Your task to perform on an android device: turn on airplane mode Image 0: 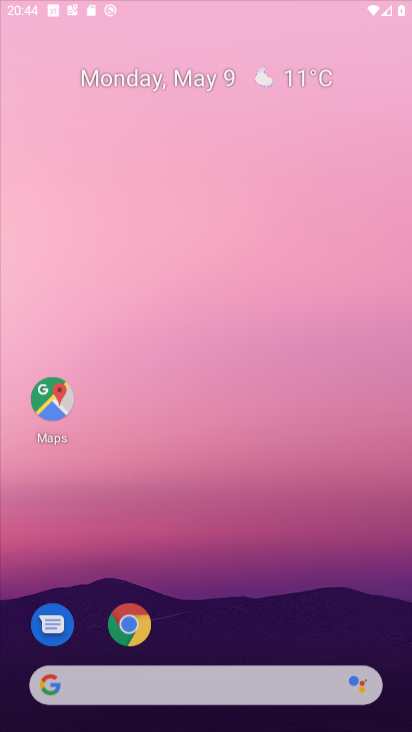
Step 0: click (45, 412)
Your task to perform on an android device: turn on airplane mode Image 1: 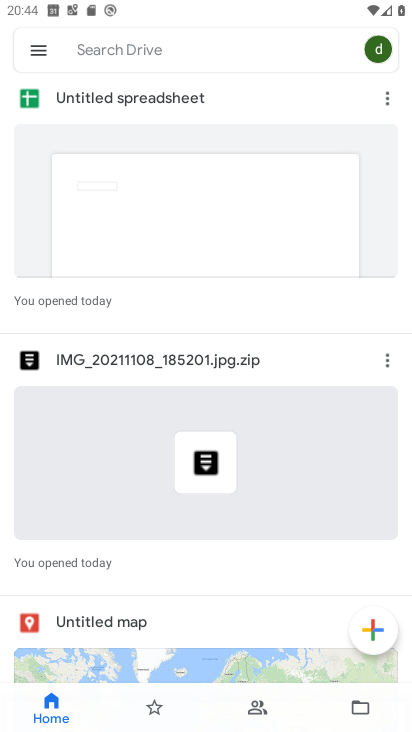
Step 1: press home button
Your task to perform on an android device: turn on airplane mode Image 2: 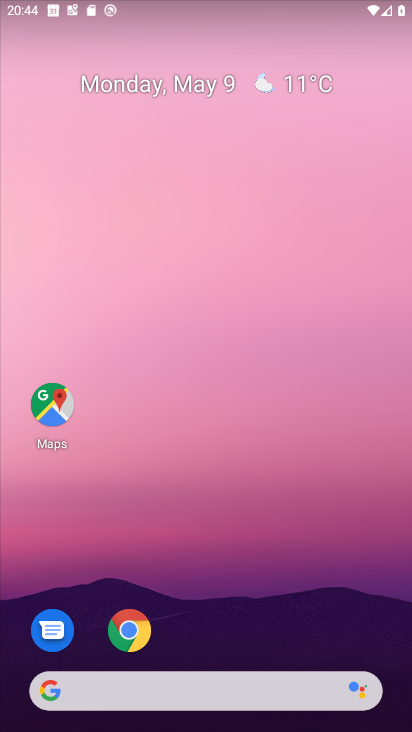
Step 2: drag from (293, 589) to (277, 226)
Your task to perform on an android device: turn on airplane mode Image 3: 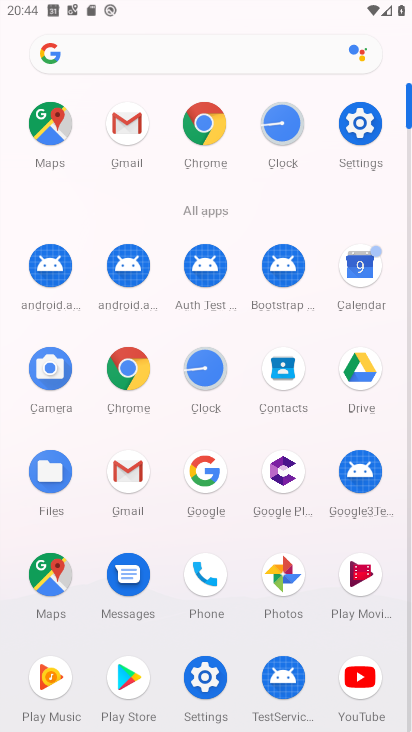
Step 3: click (341, 127)
Your task to perform on an android device: turn on airplane mode Image 4: 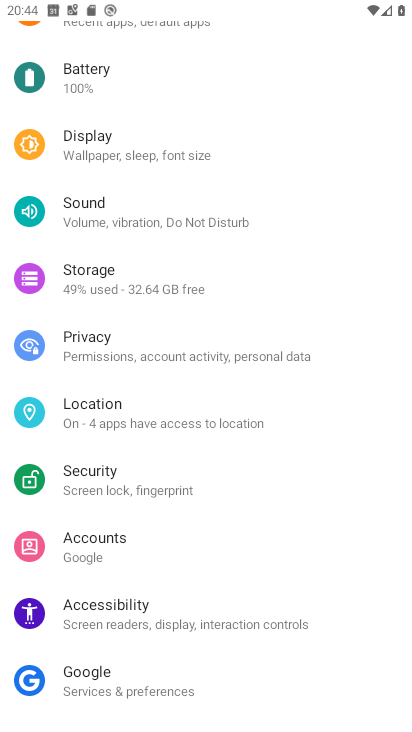
Step 4: drag from (274, 134) to (241, 560)
Your task to perform on an android device: turn on airplane mode Image 5: 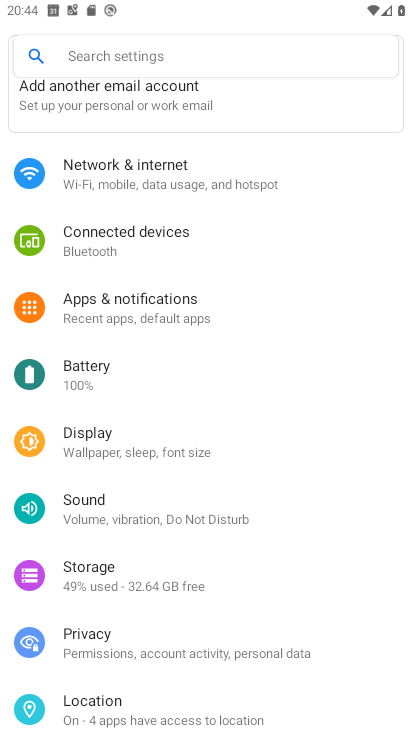
Step 5: click (279, 183)
Your task to perform on an android device: turn on airplane mode Image 6: 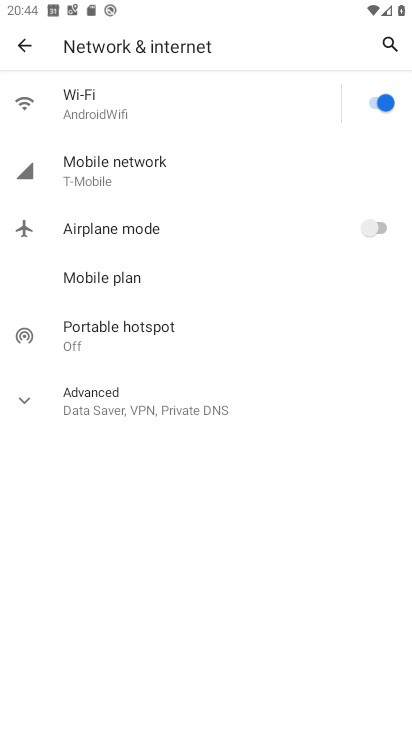
Step 6: click (379, 219)
Your task to perform on an android device: turn on airplane mode Image 7: 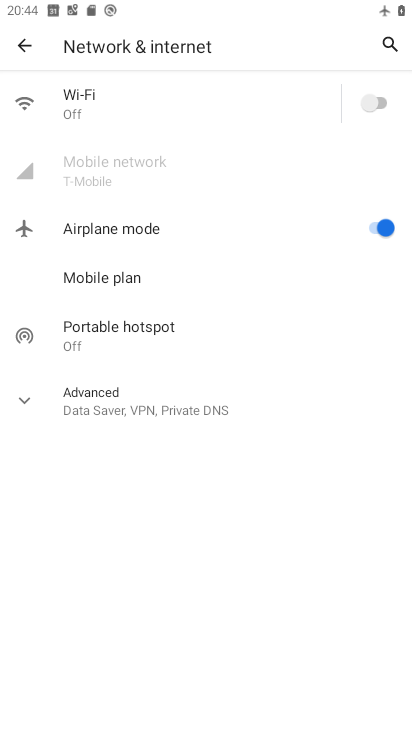
Step 7: task complete